Your task to perform on an android device: delete a single message in the gmail app Image 0: 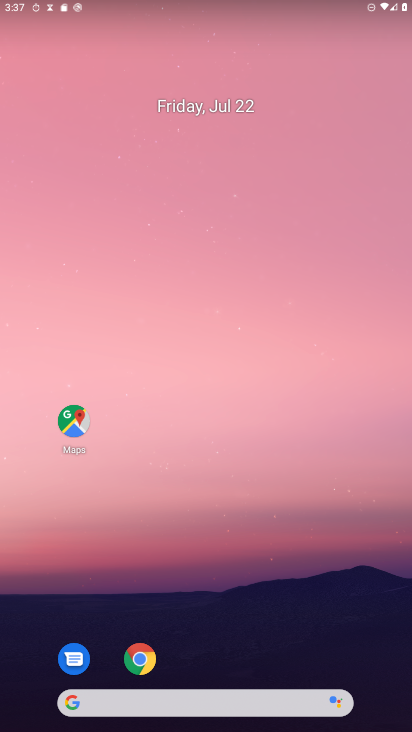
Step 0: drag from (266, 503) to (211, 42)
Your task to perform on an android device: delete a single message in the gmail app Image 1: 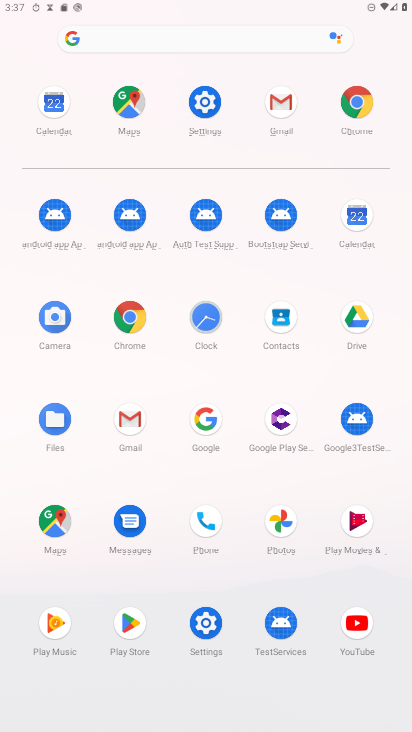
Step 1: click (279, 101)
Your task to perform on an android device: delete a single message in the gmail app Image 2: 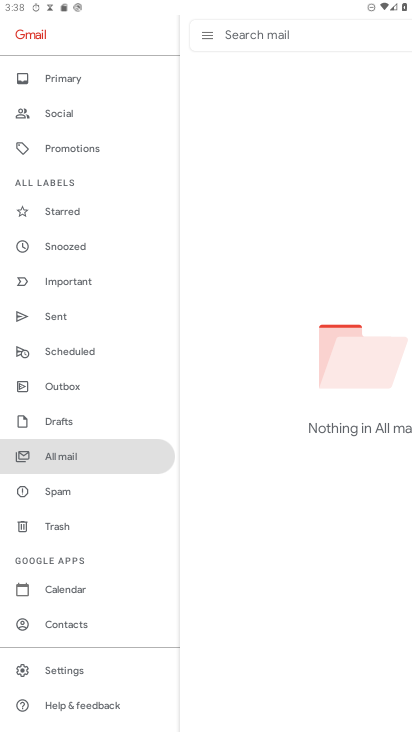
Step 2: click (90, 453)
Your task to perform on an android device: delete a single message in the gmail app Image 3: 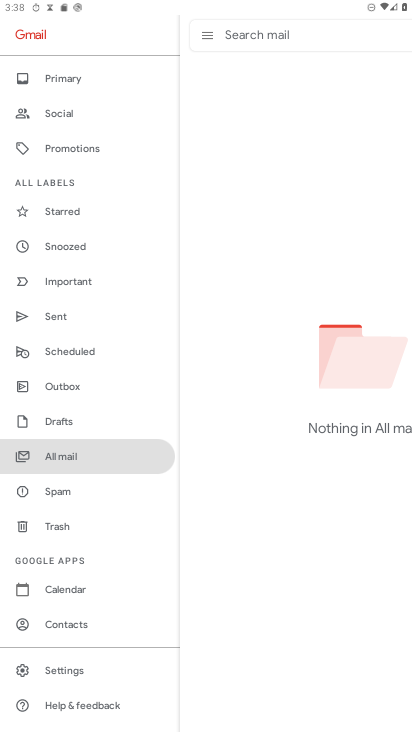
Step 3: task complete